Your task to perform on an android device: toggle airplane mode Image 0: 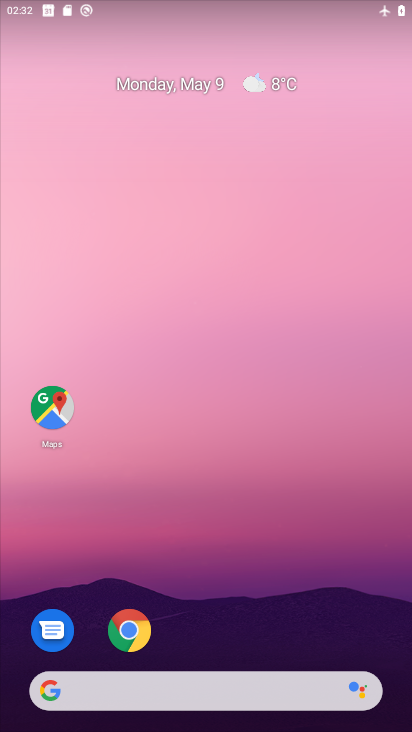
Step 0: drag from (245, 608) to (363, 17)
Your task to perform on an android device: toggle airplane mode Image 1: 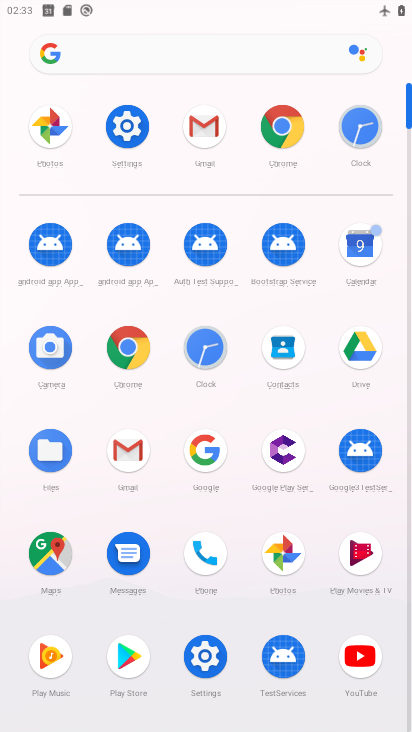
Step 1: click (206, 671)
Your task to perform on an android device: toggle airplane mode Image 2: 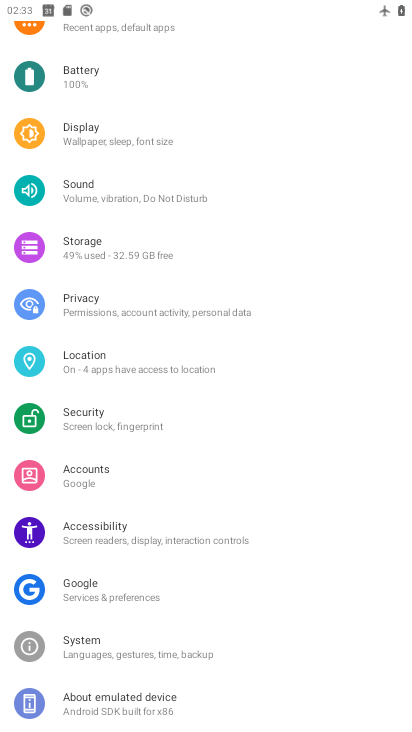
Step 2: drag from (154, 161) to (211, 664)
Your task to perform on an android device: toggle airplane mode Image 3: 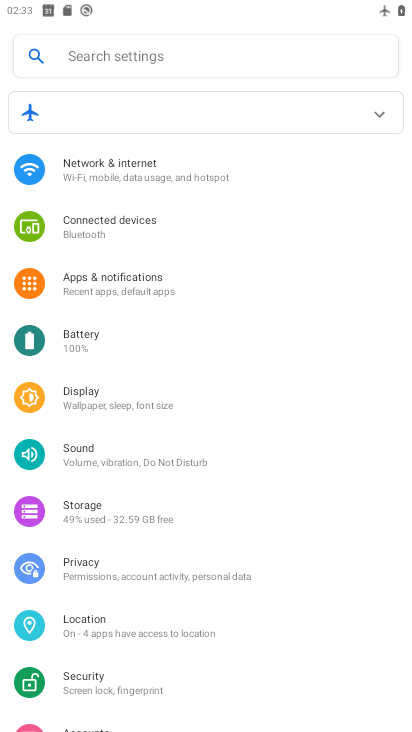
Step 3: click (163, 177)
Your task to perform on an android device: toggle airplane mode Image 4: 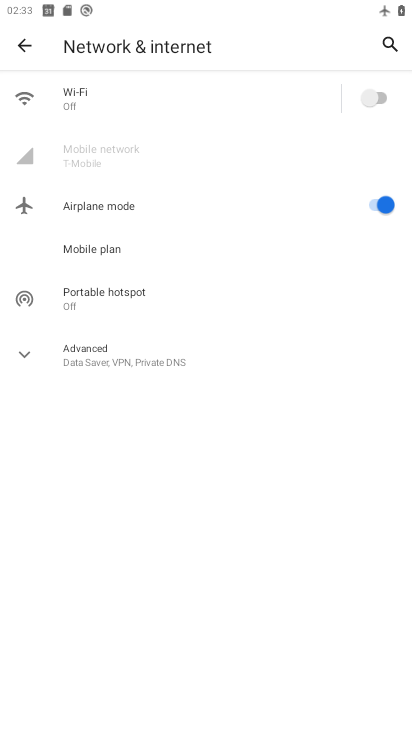
Step 4: click (362, 200)
Your task to perform on an android device: toggle airplane mode Image 5: 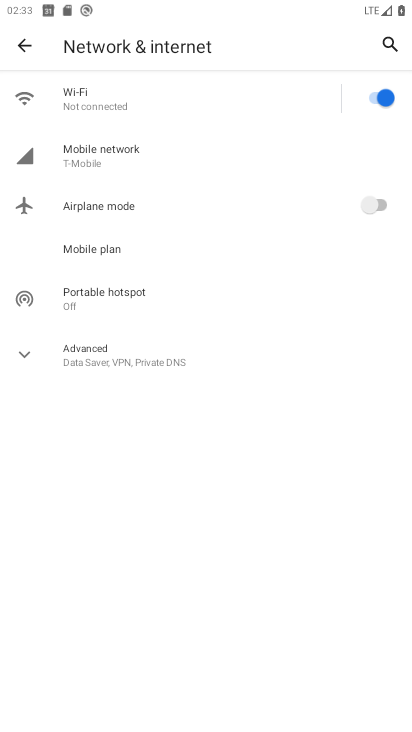
Step 5: task complete